Your task to perform on an android device: Search for usb-c to usb-b on costco, select the first entry, add it to the cart, then select checkout. Image 0: 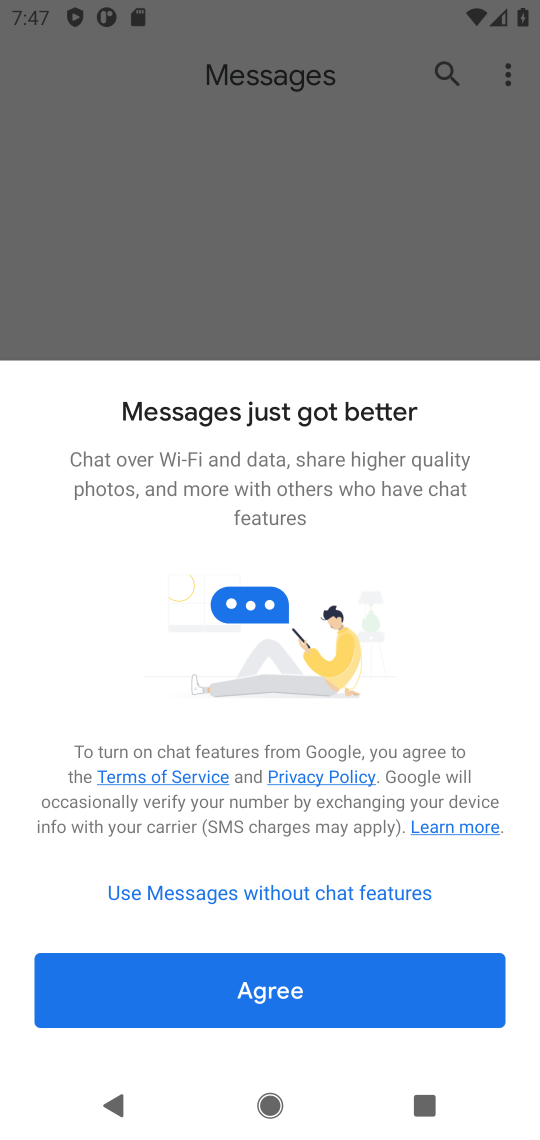
Step 0: press home button
Your task to perform on an android device: Search for usb-c to usb-b on costco, select the first entry, add it to the cart, then select checkout. Image 1: 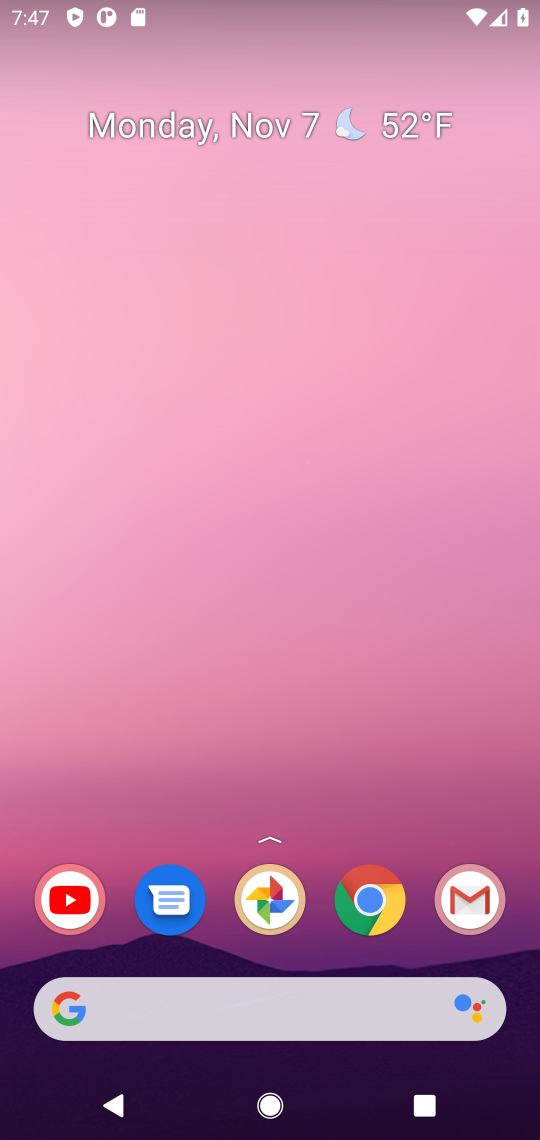
Step 1: click (214, 995)
Your task to perform on an android device: Search for usb-c to usb-b on costco, select the first entry, add it to the cart, then select checkout. Image 2: 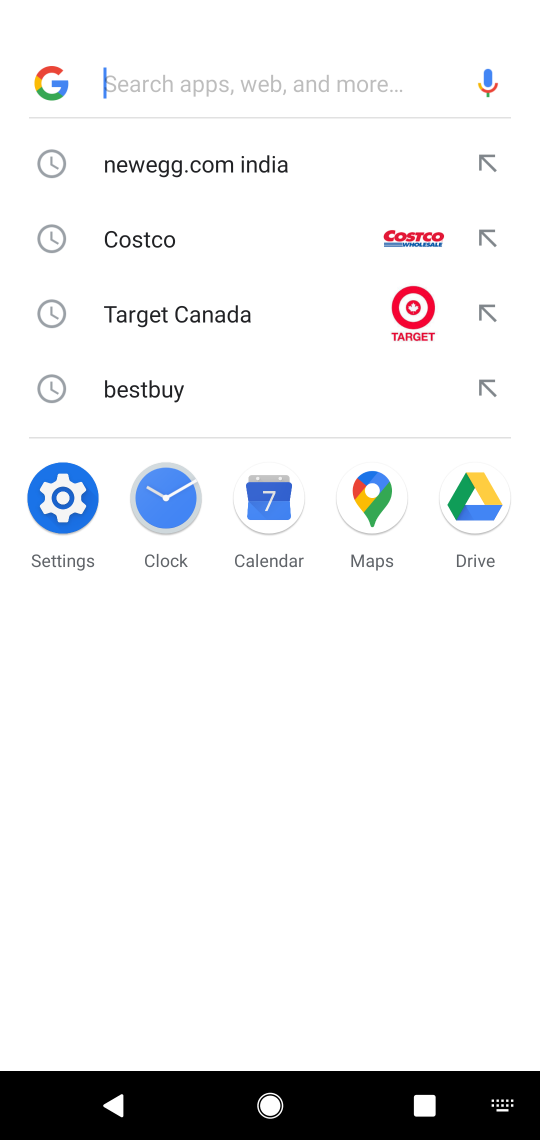
Step 2: click (168, 254)
Your task to perform on an android device: Search for usb-c to usb-b on costco, select the first entry, add it to the cart, then select checkout. Image 3: 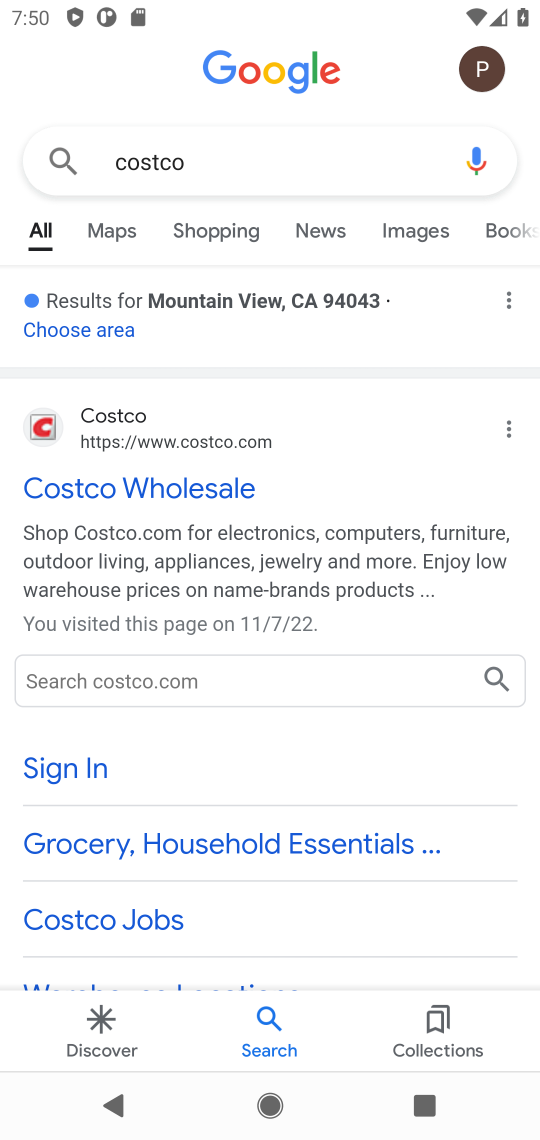
Step 3: click (74, 501)
Your task to perform on an android device: Search for usb-c to usb-b on costco, select the first entry, add it to the cart, then select checkout. Image 4: 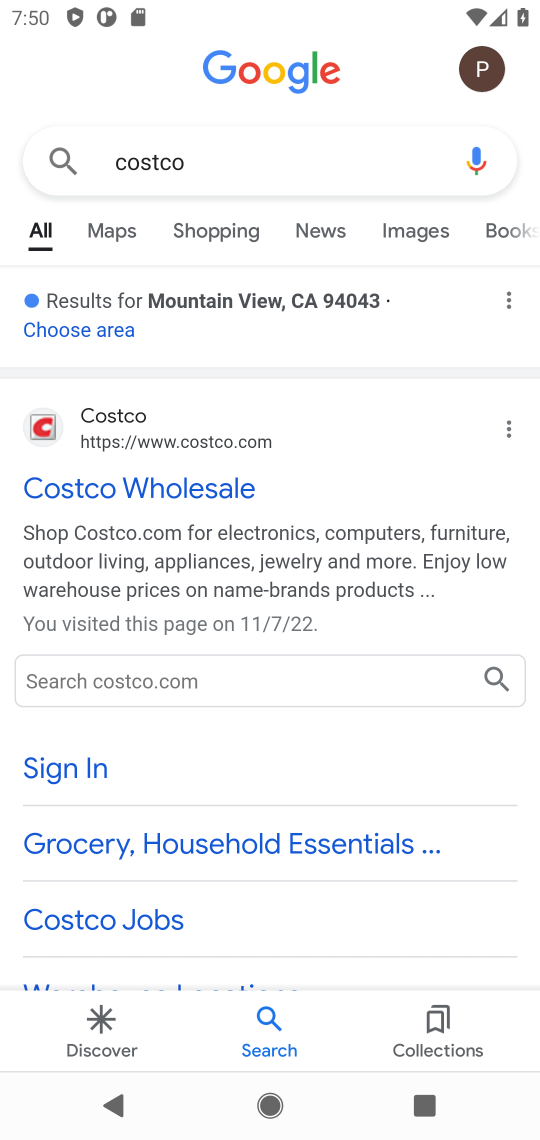
Step 4: task complete